Your task to perform on an android device: toggle data saver in the chrome app Image 0: 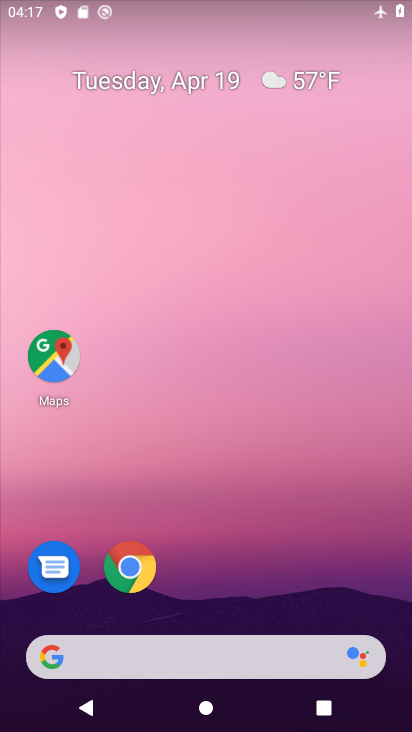
Step 0: drag from (374, 602) to (362, 225)
Your task to perform on an android device: toggle data saver in the chrome app Image 1: 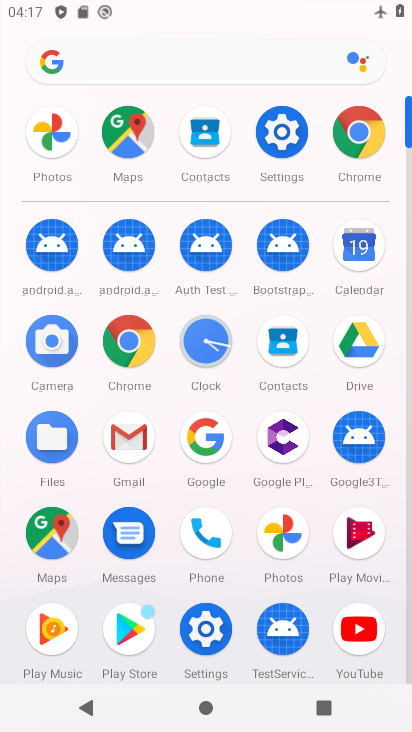
Step 1: click (133, 353)
Your task to perform on an android device: toggle data saver in the chrome app Image 2: 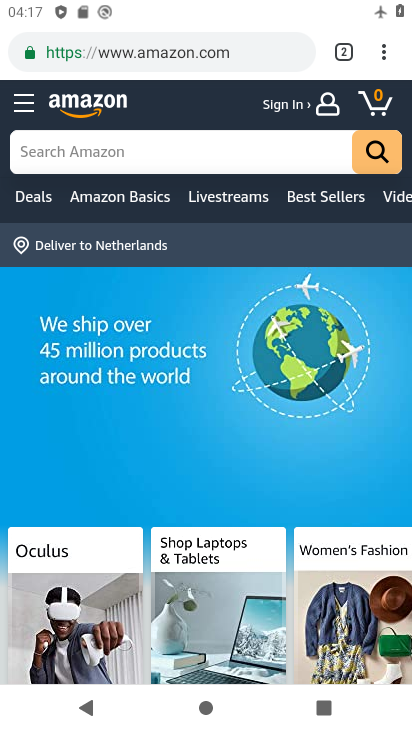
Step 2: click (386, 49)
Your task to perform on an android device: toggle data saver in the chrome app Image 3: 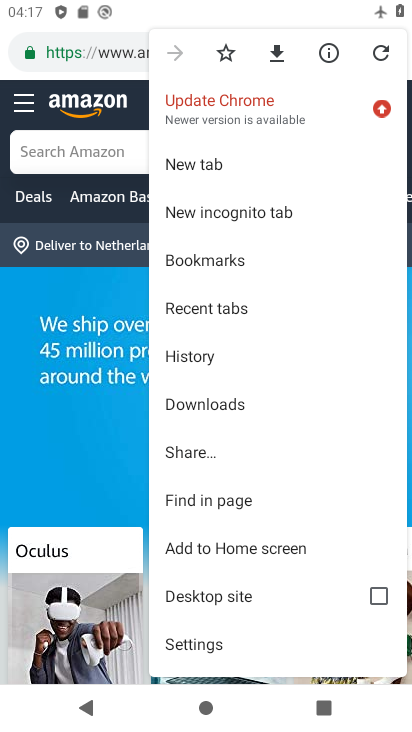
Step 3: click (212, 640)
Your task to perform on an android device: toggle data saver in the chrome app Image 4: 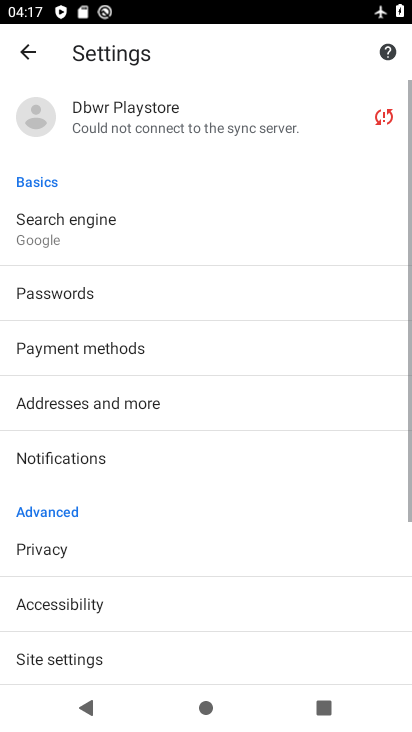
Step 4: drag from (270, 609) to (283, 487)
Your task to perform on an android device: toggle data saver in the chrome app Image 5: 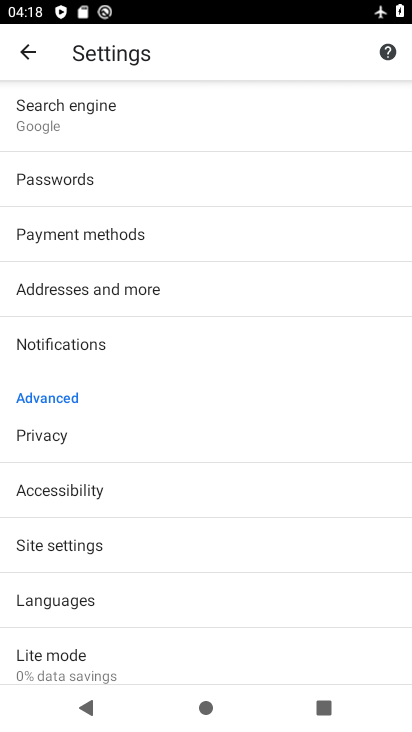
Step 5: drag from (274, 603) to (276, 462)
Your task to perform on an android device: toggle data saver in the chrome app Image 6: 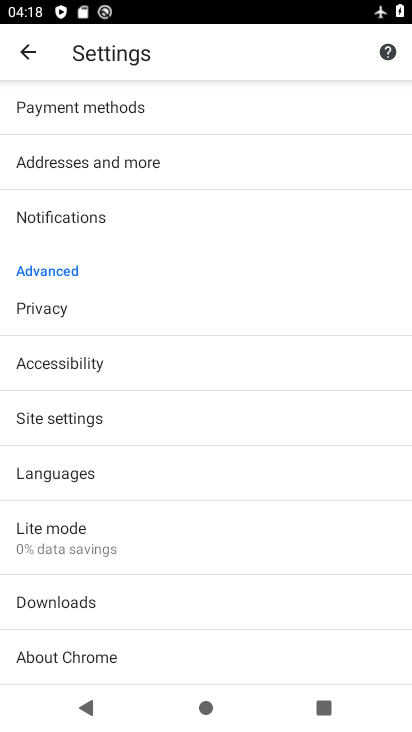
Step 6: drag from (292, 604) to (289, 460)
Your task to perform on an android device: toggle data saver in the chrome app Image 7: 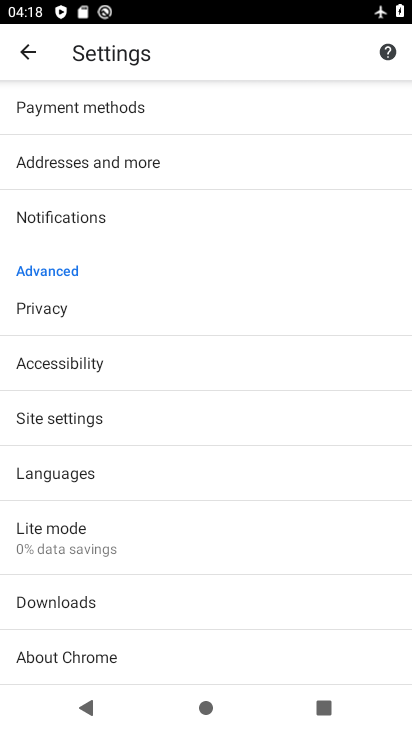
Step 7: drag from (314, 398) to (301, 488)
Your task to perform on an android device: toggle data saver in the chrome app Image 8: 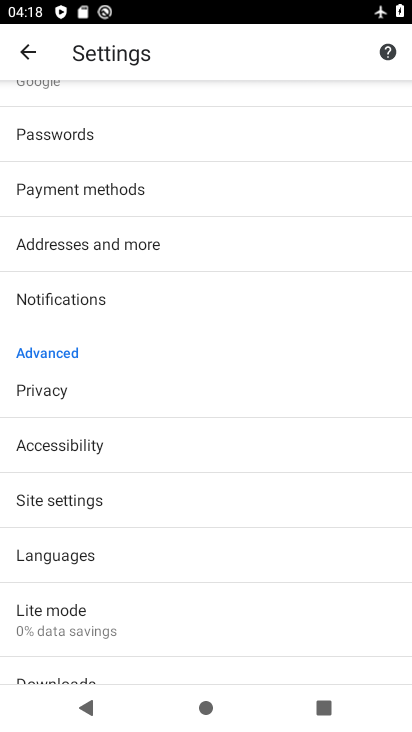
Step 8: drag from (308, 432) to (311, 540)
Your task to perform on an android device: toggle data saver in the chrome app Image 9: 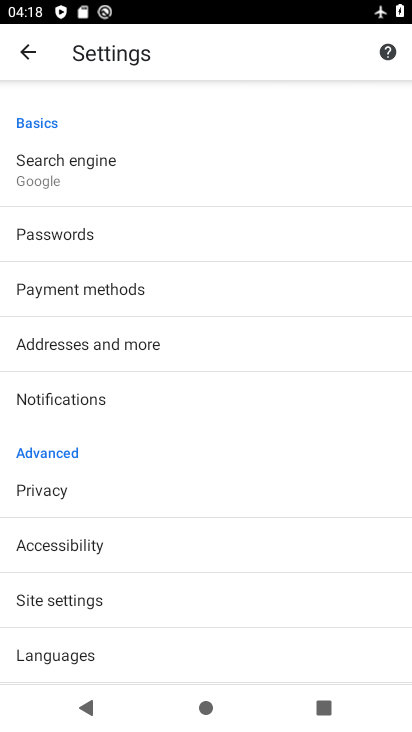
Step 9: drag from (309, 416) to (309, 521)
Your task to perform on an android device: toggle data saver in the chrome app Image 10: 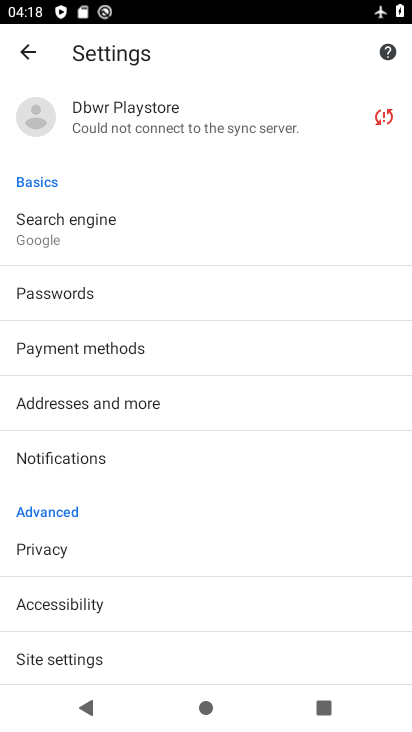
Step 10: drag from (299, 354) to (302, 470)
Your task to perform on an android device: toggle data saver in the chrome app Image 11: 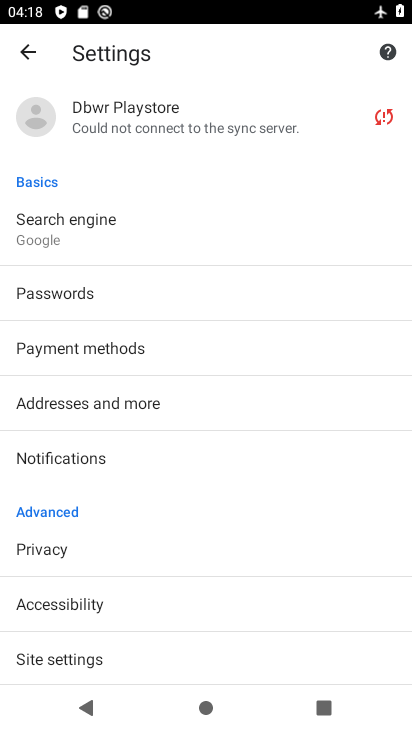
Step 11: drag from (300, 546) to (312, 440)
Your task to perform on an android device: toggle data saver in the chrome app Image 12: 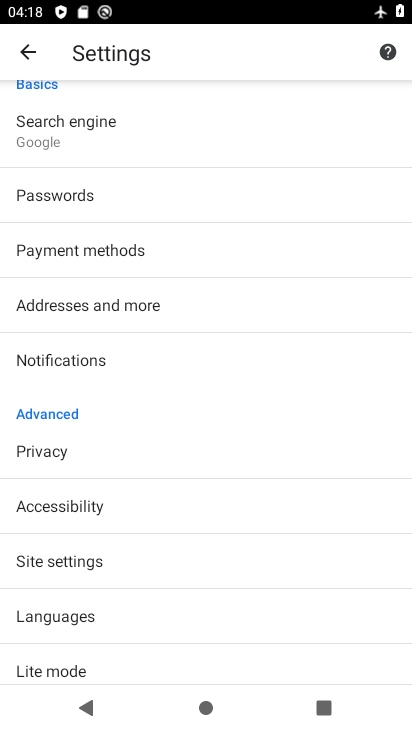
Step 12: drag from (289, 550) to (289, 448)
Your task to perform on an android device: toggle data saver in the chrome app Image 13: 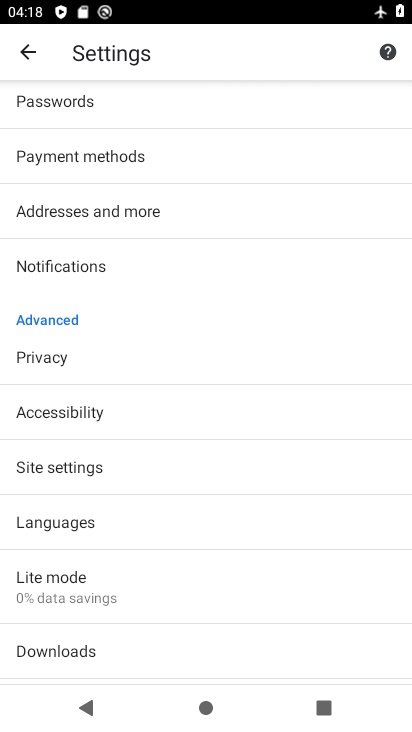
Step 13: click (239, 575)
Your task to perform on an android device: toggle data saver in the chrome app Image 14: 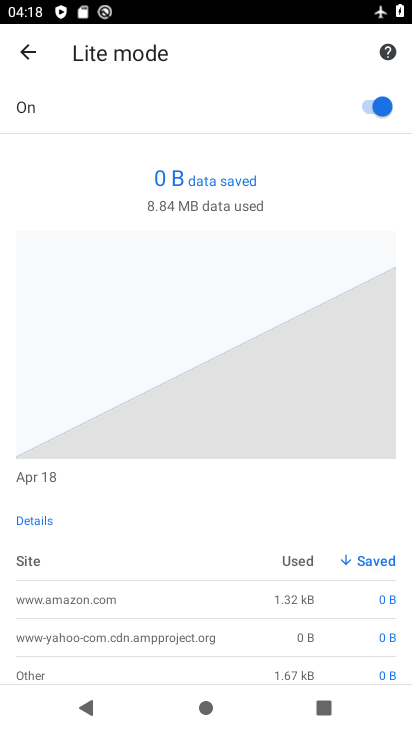
Step 14: click (376, 102)
Your task to perform on an android device: toggle data saver in the chrome app Image 15: 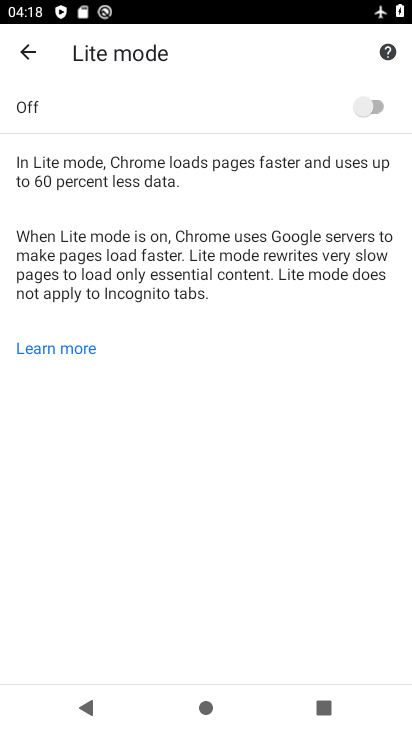
Step 15: task complete